Your task to perform on an android device: turn on airplane mode Image 0: 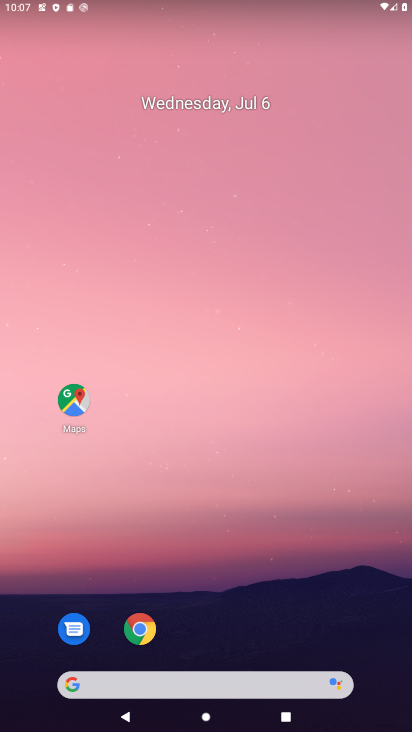
Step 0: drag from (206, 631) to (201, 136)
Your task to perform on an android device: turn on airplane mode Image 1: 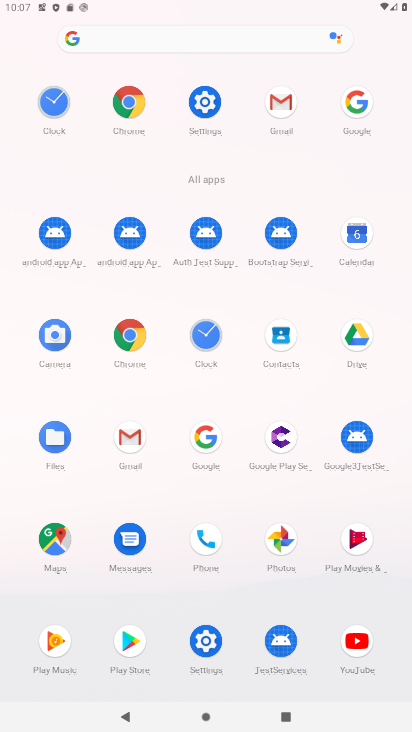
Step 1: click (199, 103)
Your task to perform on an android device: turn on airplane mode Image 2: 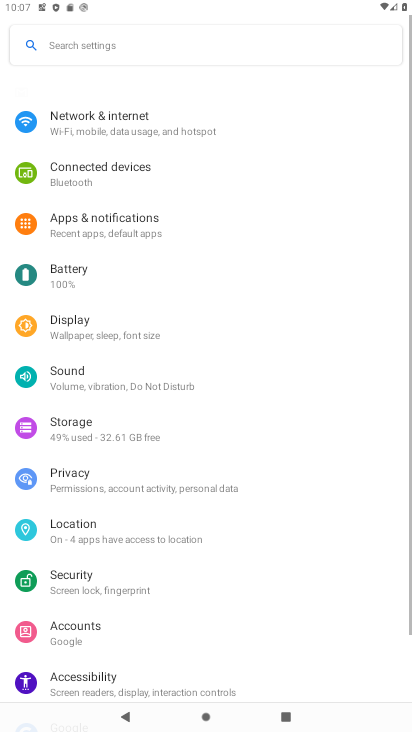
Step 2: click (169, 165)
Your task to perform on an android device: turn on airplane mode Image 3: 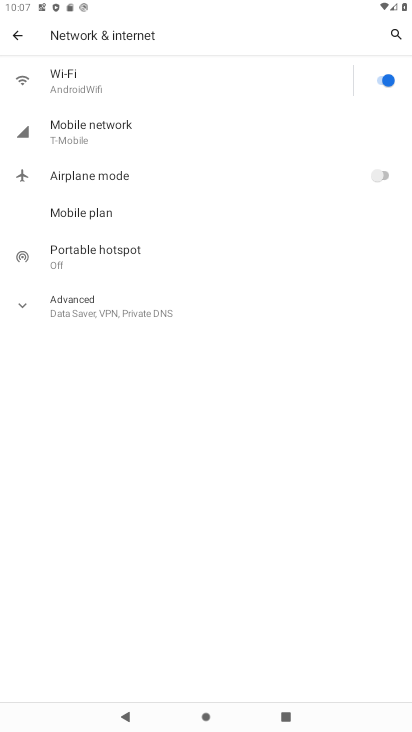
Step 3: click (370, 179)
Your task to perform on an android device: turn on airplane mode Image 4: 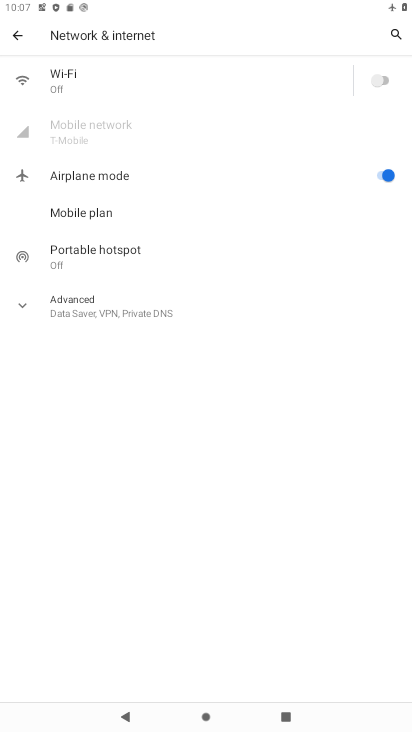
Step 4: task complete